Your task to perform on an android device: allow cookies in the chrome app Image 0: 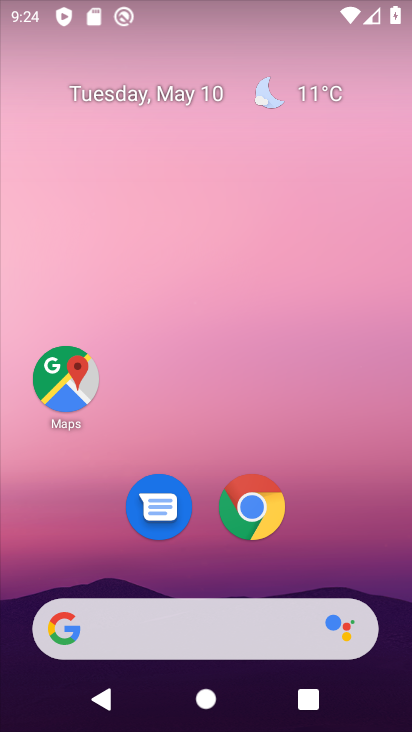
Step 0: click (241, 506)
Your task to perform on an android device: allow cookies in the chrome app Image 1: 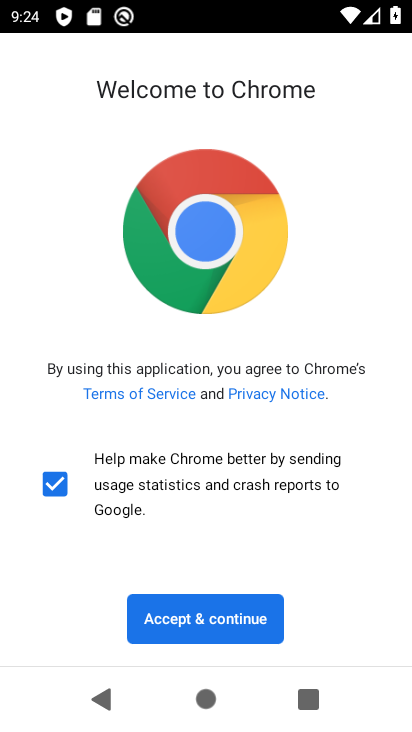
Step 1: click (256, 606)
Your task to perform on an android device: allow cookies in the chrome app Image 2: 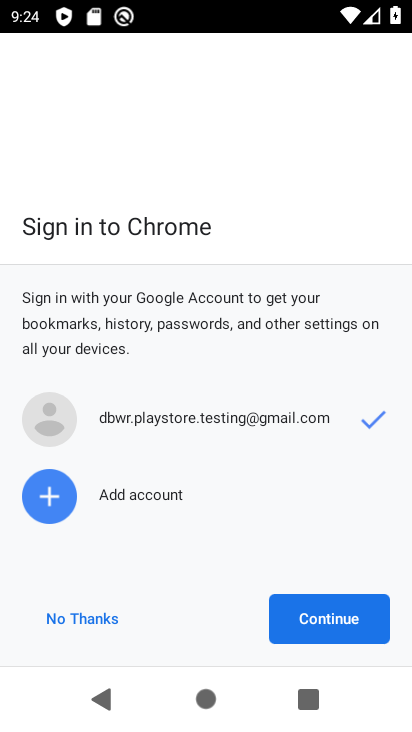
Step 2: click (363, 628)
Your task to perform on an android device: allow cookies in the chrome app Image 3: 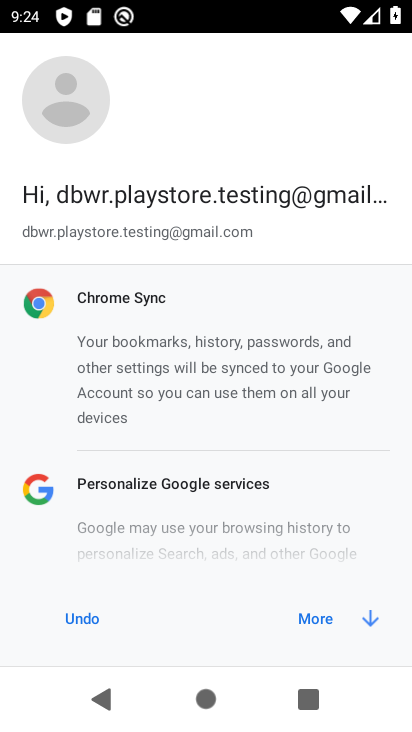
Step 3: click (334, 624)
Your task to perform on an android device: allow cookies in the chrome app Image 4: 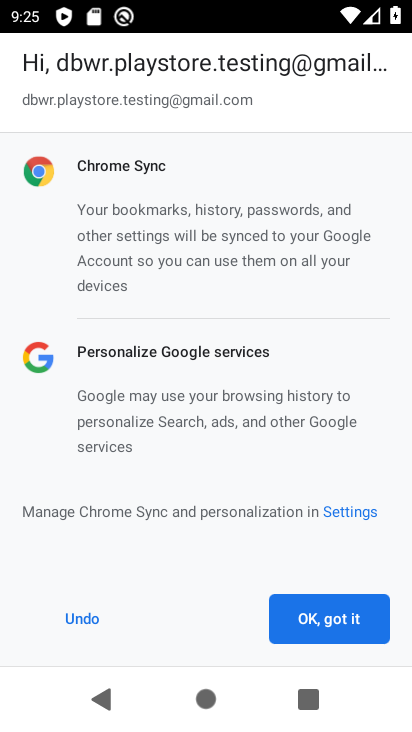
Step 4: click (322, 606)
Your task to perform on an android device: allow cookies in the chrome app Image 5: 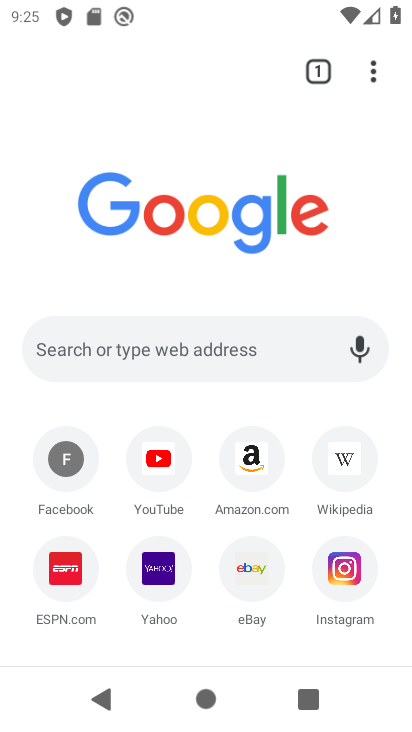
Step 5: click (385, 70)
Your task to perform on an android device: allow cookies in the chrome app Image 6: 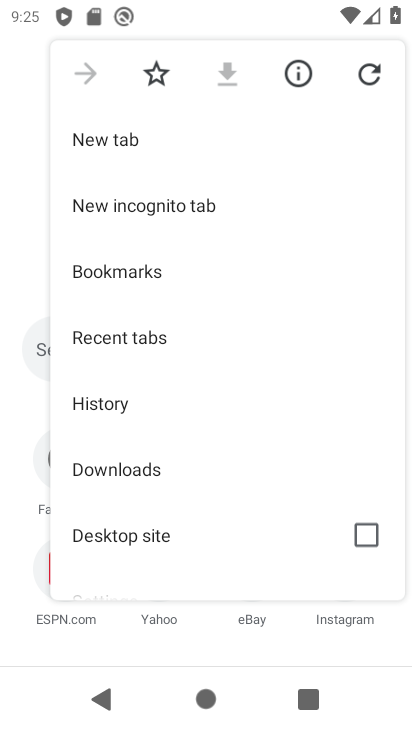
Step 6: drag from (139, 535) to (153, 158)
Your task to perform on an android device: allow cookies in the chrome app Image 7: 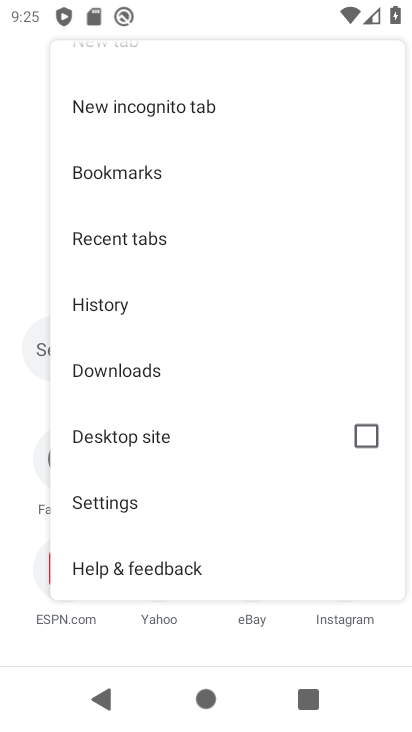
Step 7: click (120, 487)
Your task to perform on an android device: allow cookies in the chrome app Image 8: 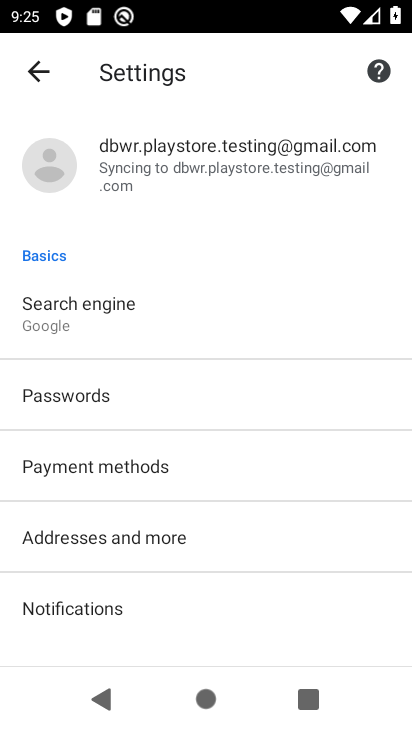
Step 8: drag from (151, 598) to (116, 175)
Your task to perform on an android device: allow cookies in the chrome app Image 9: 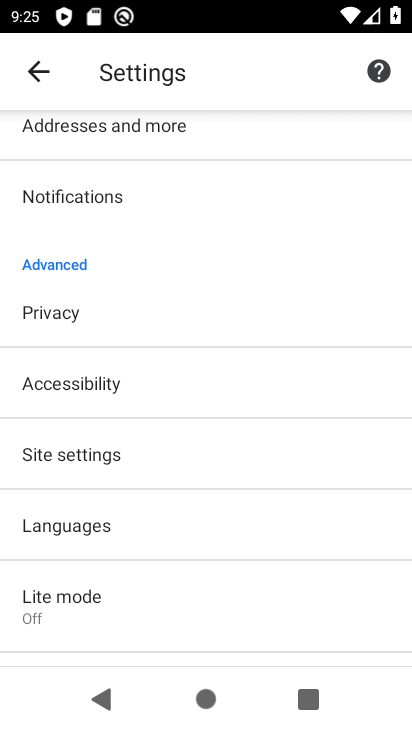
Step 9: click (125, 473)
Your task to perform on an android device: allow cookies in the chrome app Image 10: 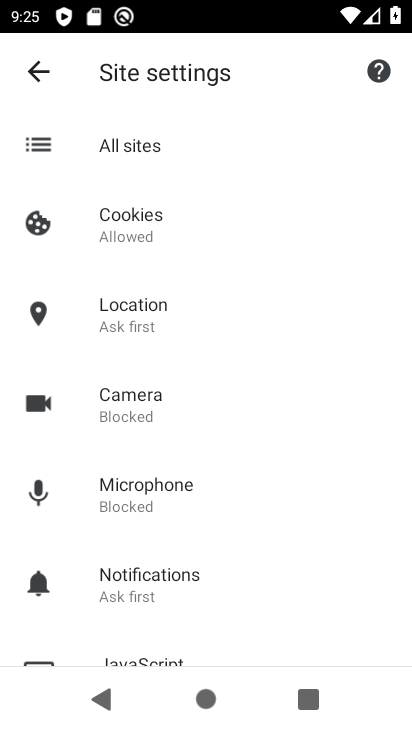
Step 10: task complete